Your task to perform on an android device: see creations saved in the google photos Image 0: 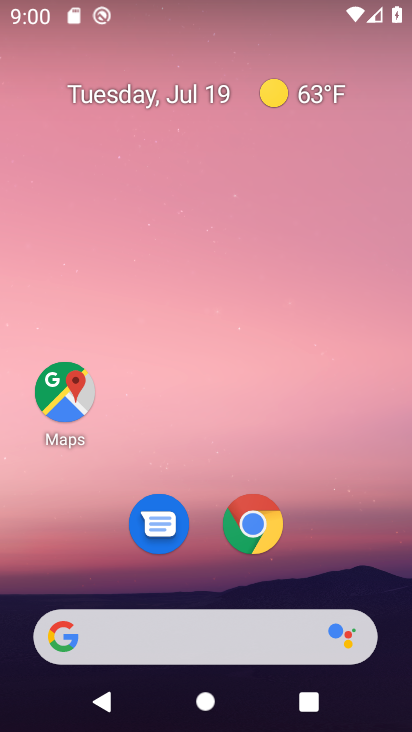
Step 0: press home button
Your task to perform on an android device: see creations saved in the google photos Image 1: 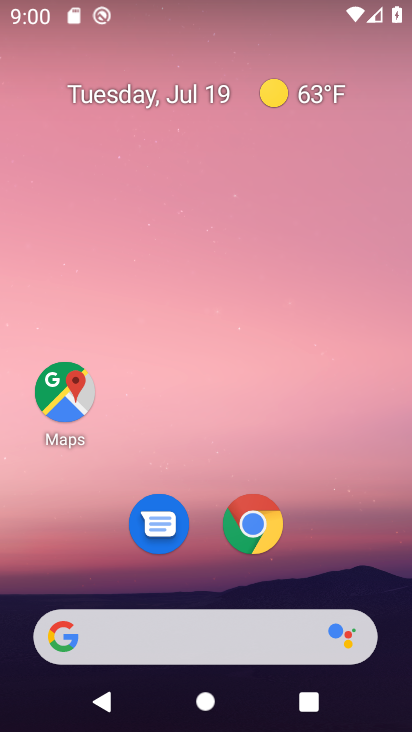
Step 1: drag from (222, 634) to (343, 53)
Your task to perform on an android device: see creations saved in the google photos Image 2: 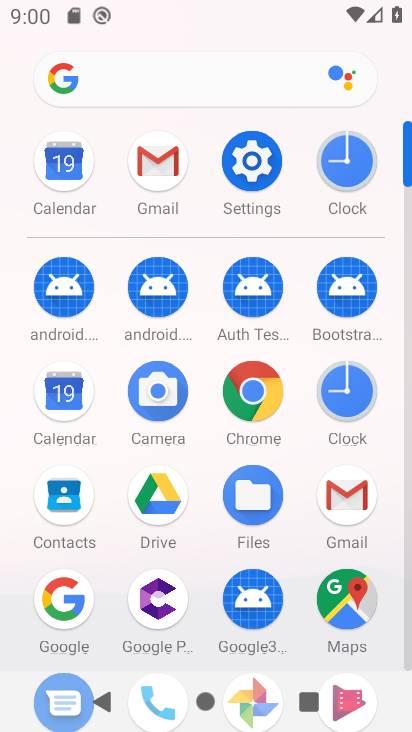
Step 2: drag from (192, 593) to (279, 269)
Your task to perform on an android device: see creations saved in the google photos Image 3: 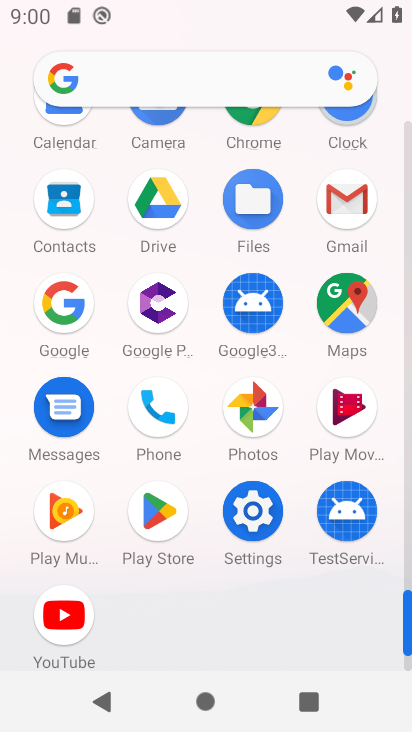
Step 3: click (256, 409)
Your task to perform on an android device: see creations saved in the google photos Image 4: 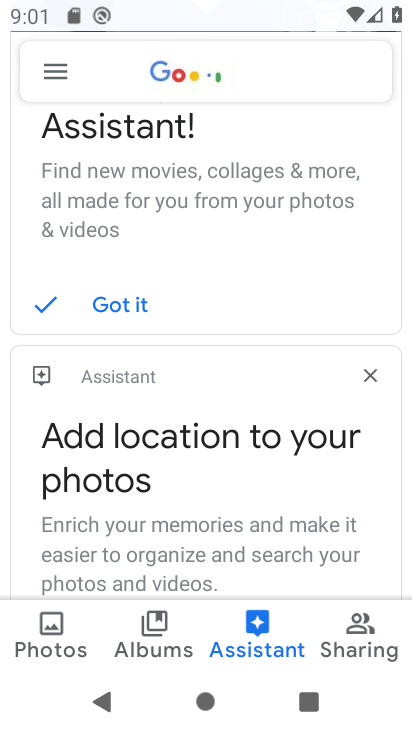
Step 4: click (148, 640)
Your task to perform on an android device: see creations saved in the google photos Image 5: 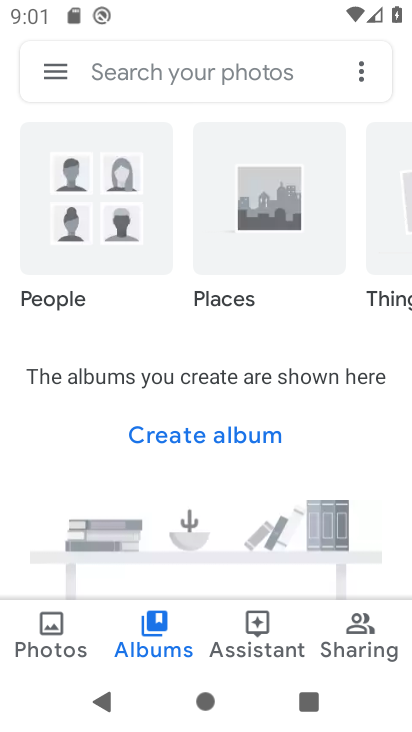
Step 5: click (128, 64)
Your task to perform on an android device: see creations saved in the google photos Image 6: 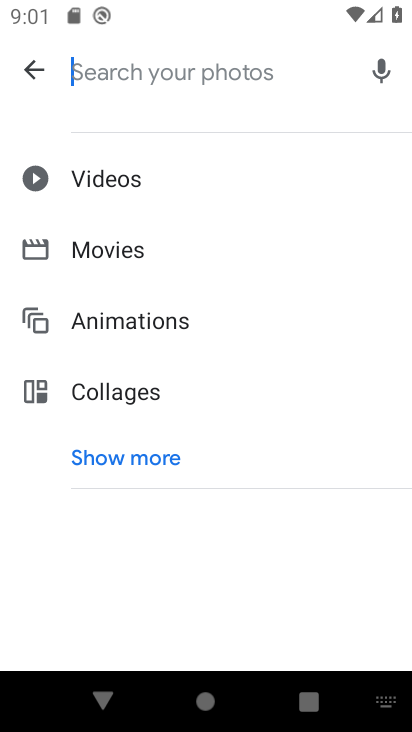
Step 6: click (117, 455)
Your task to perform on an android device: see creations saved in the google photos Image 7: 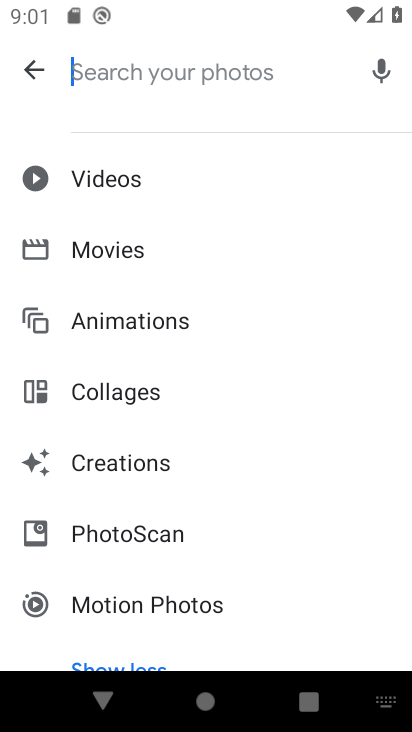
Step 7: click (124, 464)
Your task to perform on an android device: see creations saved in the google photos Image 8: 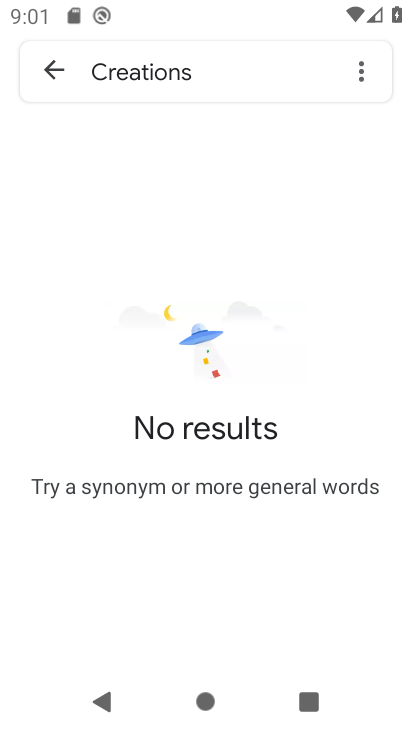
Step 8: task complete